Your task to perform on an android device: Open Google Chrome Image 0: 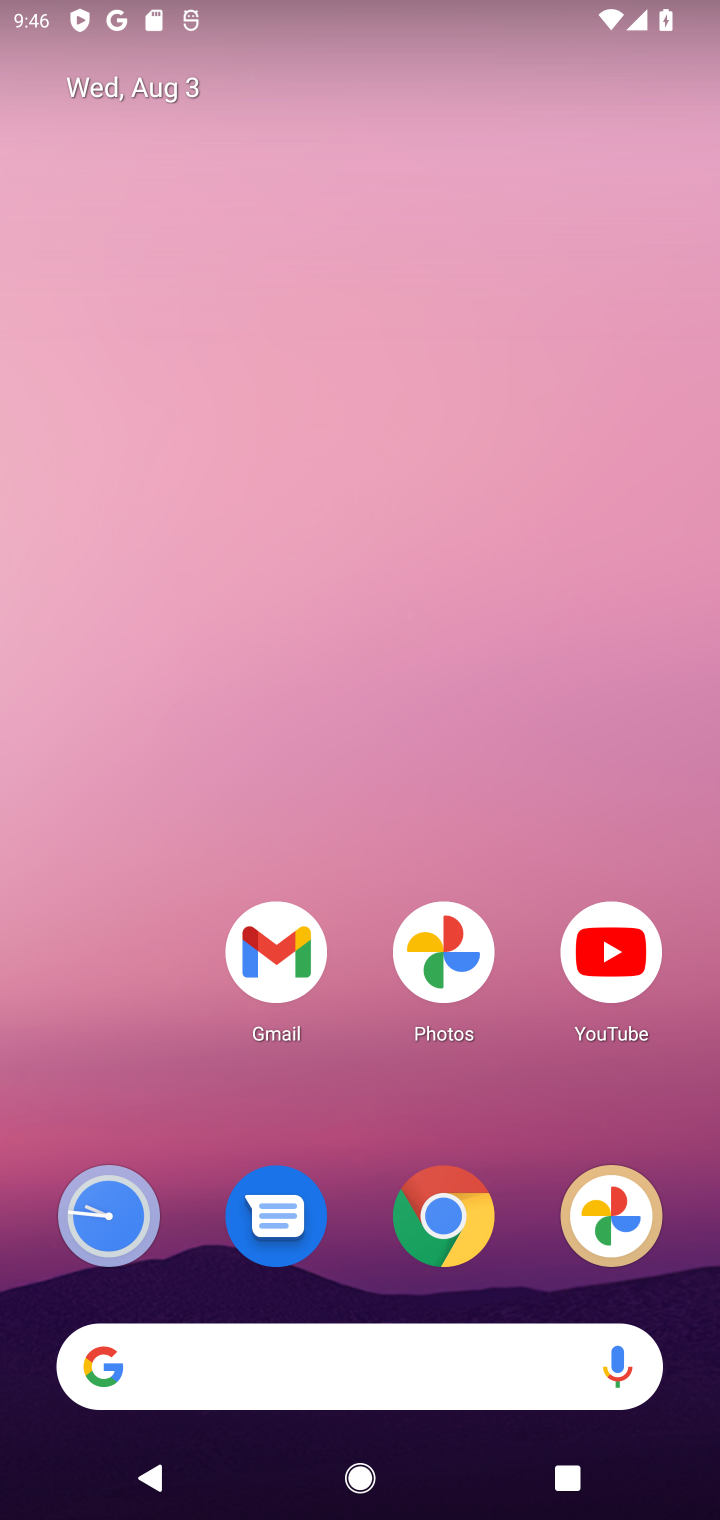
Step 0: click (447, 1227)
Your task to perform on an android device: Open Google Chrome Image 1: 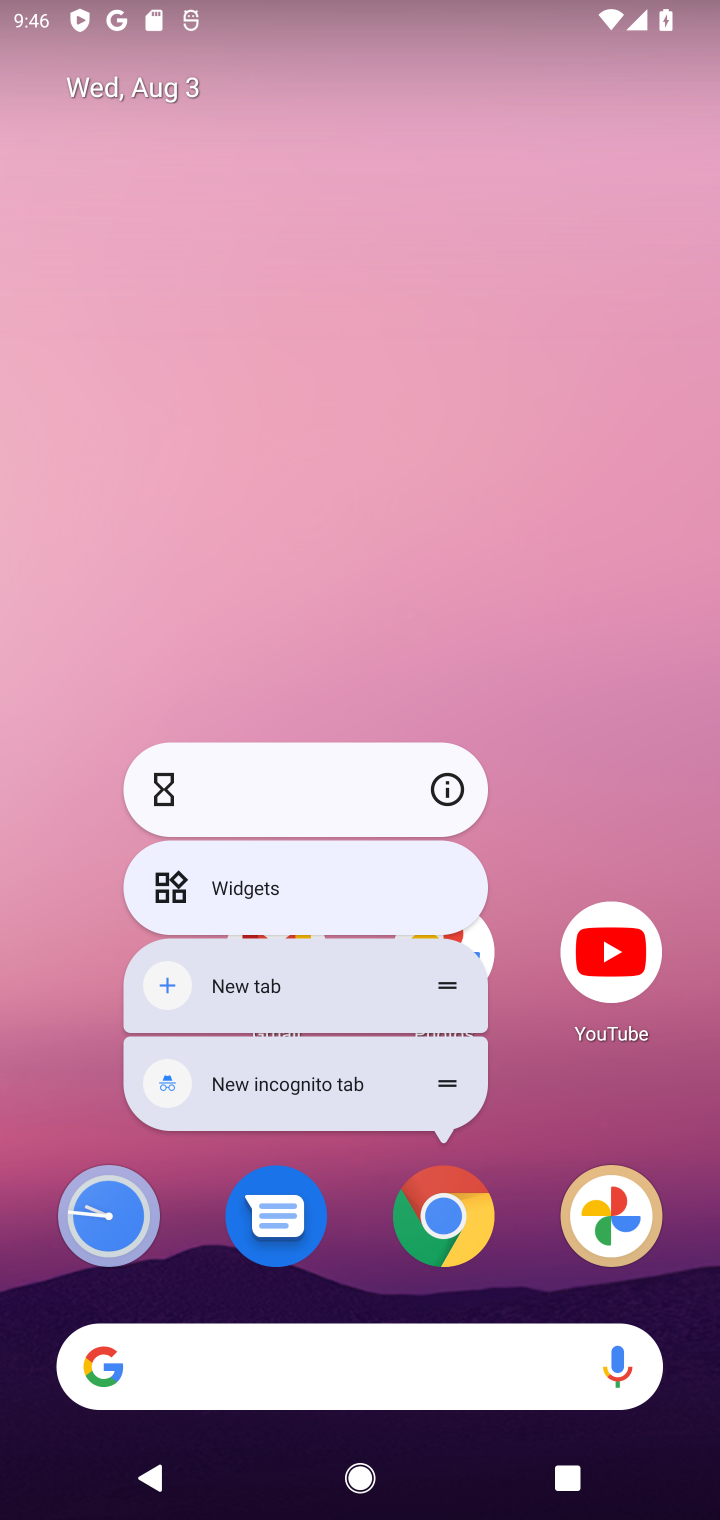
Step 1: click (419, 1197)
Your task to perform on an android device: Open Google Chrome Image 2: 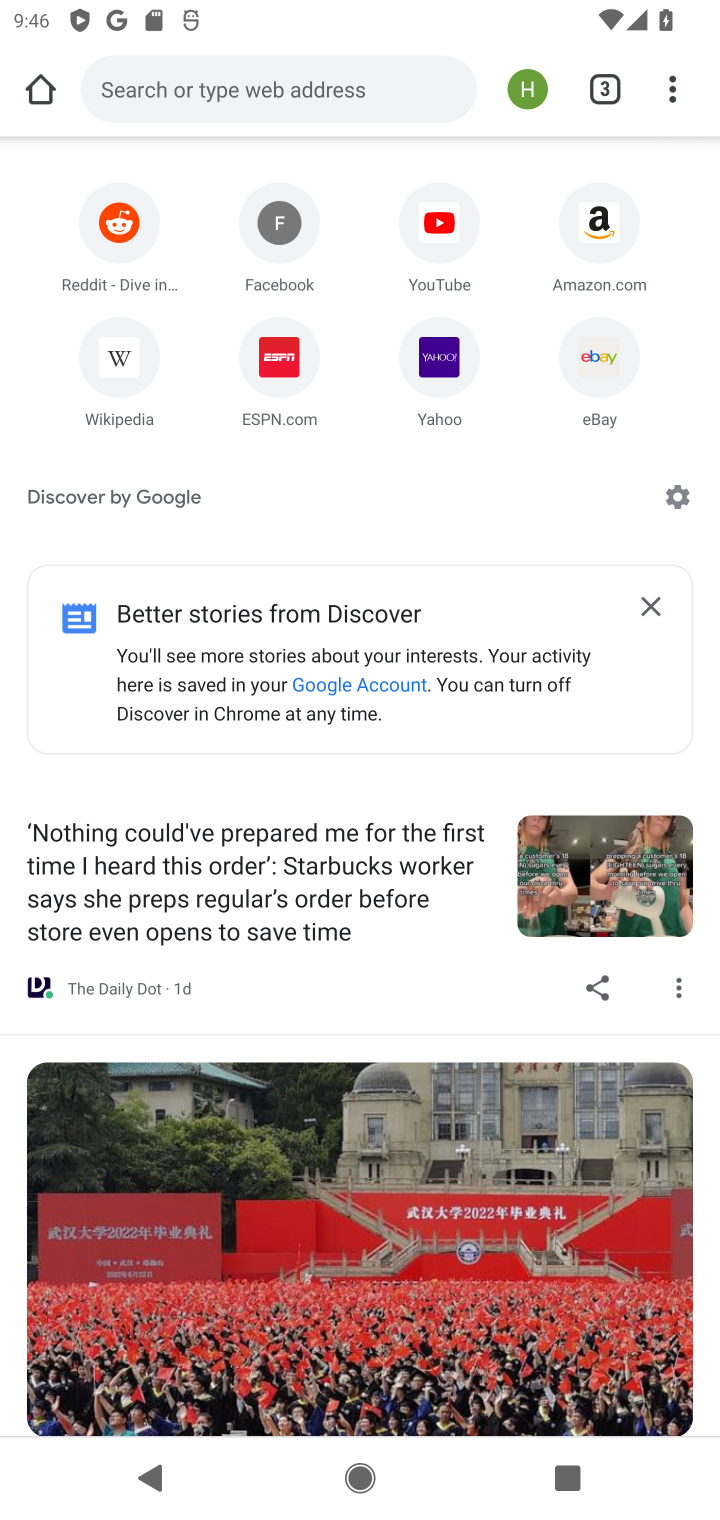
Step 2: task complete